Your task to perform on an android device: Open Amazon Image 0: 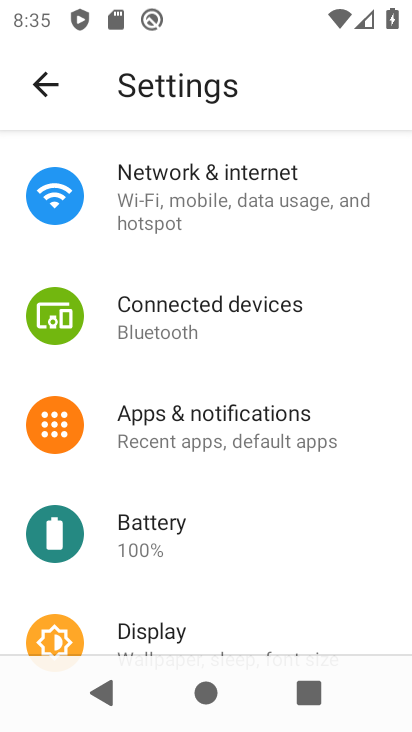
Step 0: drag from (189, 516) to (308, 267)
Your task to perform on an android device: Open Amazon Image 1: 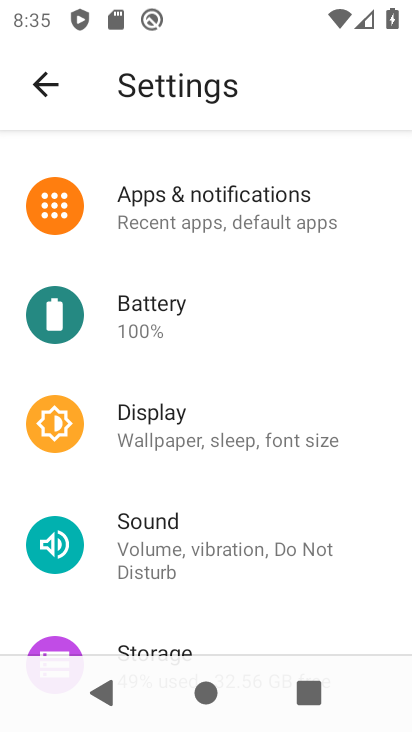
Step 1: drag from (204, 505) to (242, 305)
Your task to perform on an android device: Open Amazon Image 2: 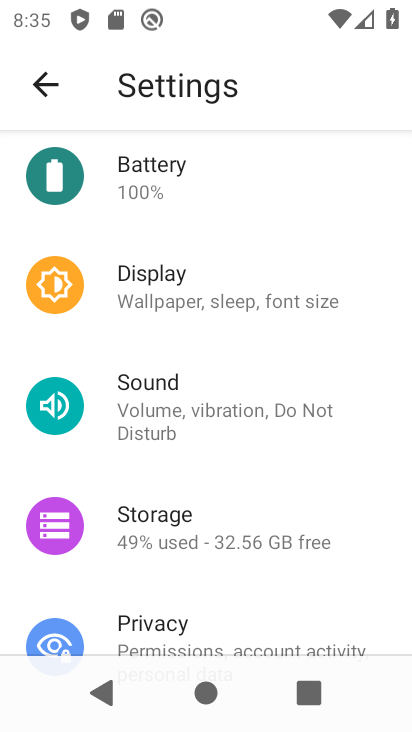
Step 2: drag from (217, 519) to (274, 331)
Your task to perform on an android device: Open Amazon Image 3: 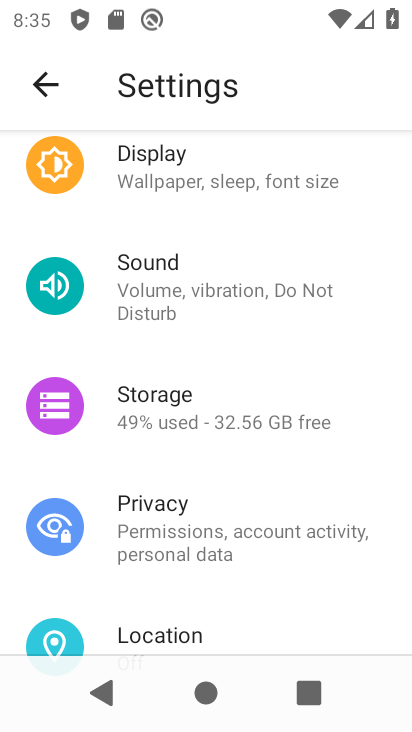
Step 3: drag from (237, 273) to (322, 727)
Your task to perform on an android device: Open Amazon Image 4: 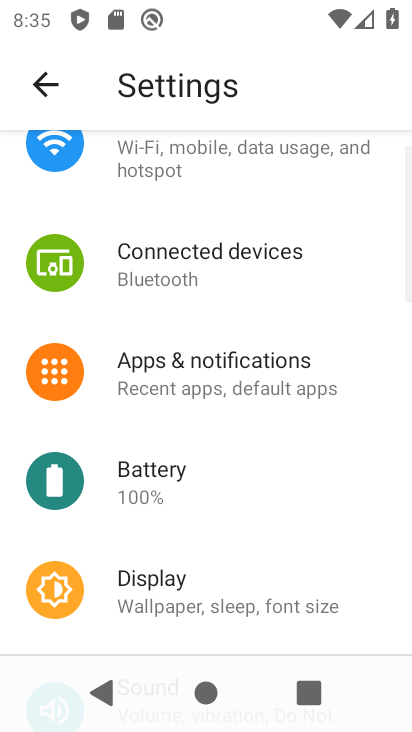
Step 4: press enter
Your task to perform on an android device: Open Amazon Image 5: 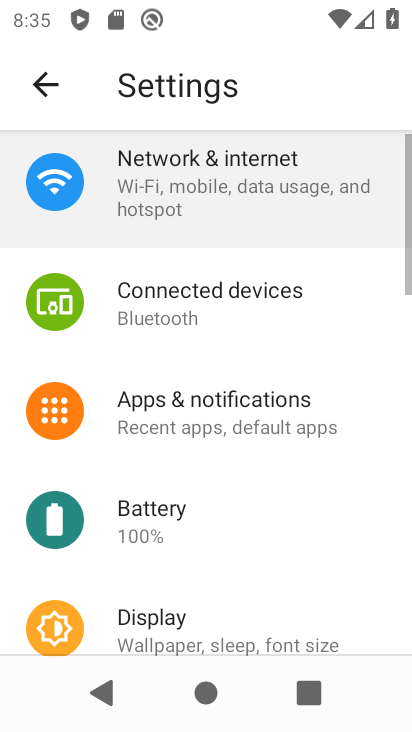
Step 5: press home button
Your task to perform on an android device: Open Amazon Image 6: 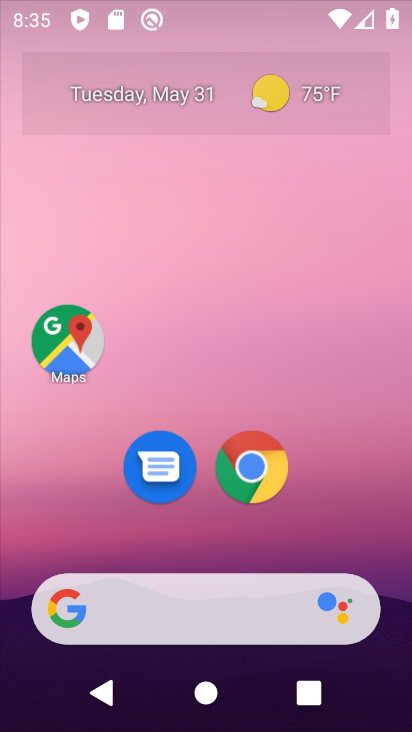
Step 6: drag from (179, 530) to (266, 46)
Your task to perform on an android device: Open Amazon Image 7: 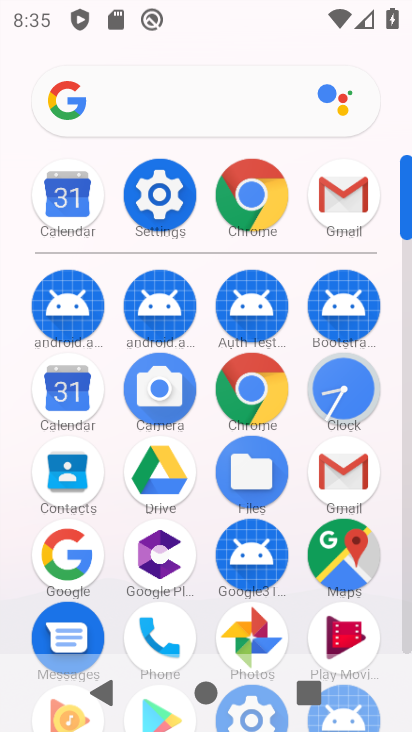
Step 7: click (220, 107)
Your task to perform on an android device: Open Amazon Image 8: 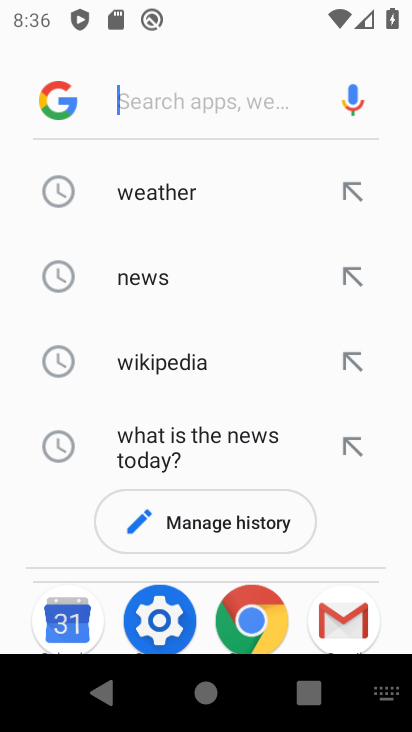
Step 8: type "Amazon"
Your task to perform on an android device: Open Amazon Image 9: 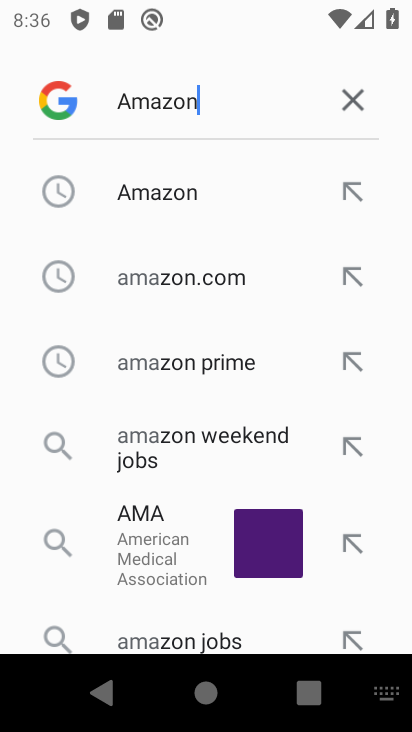
Step 9: type ""
Your task to perform on an android device: Open Amazon Image 10: 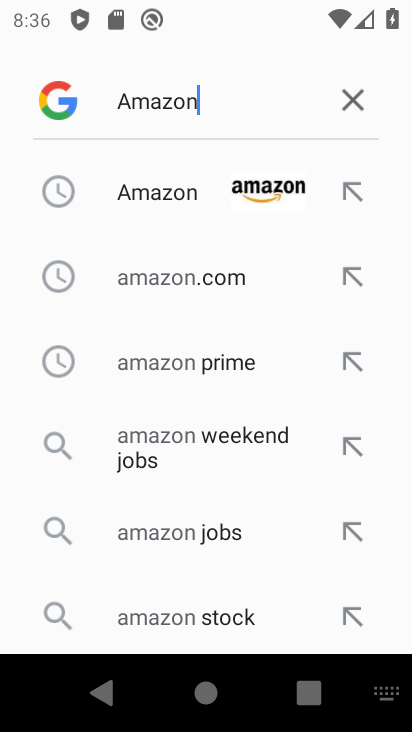
Step 10: click (163, 209)
Your task to perform on an android device: Open Amazon Image 11: 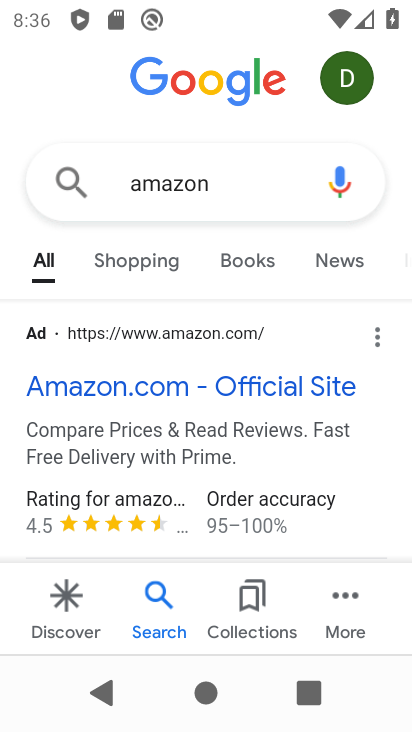
Step 11: click (122, 390)
Your task to perform on an android device: Open Amazon Image 12: 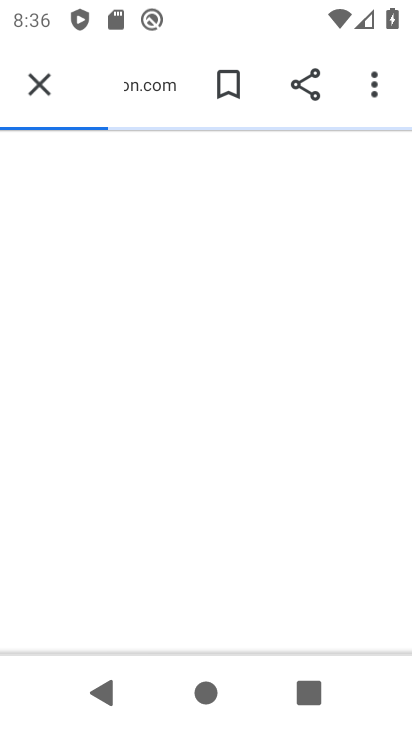
Step 12: task complete